Your task to perform on an android device: Open the stopwatch Image 0: 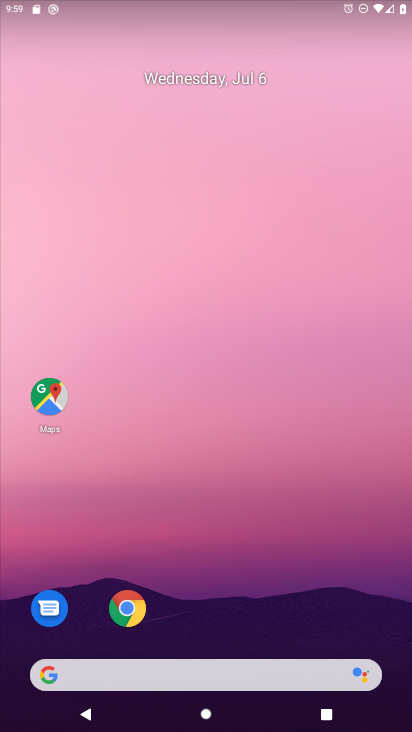
Step 0: drag from (204, 468) to (287, 122)
Your task to perform on an android device: Open the stopwatch Image 1: 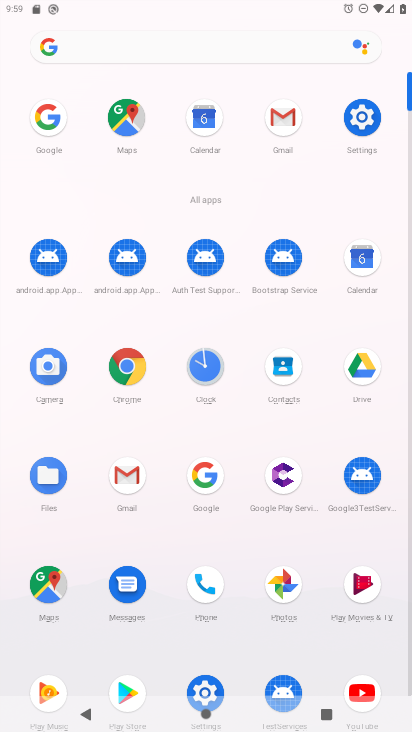
Step 1: click (200, 368)
Your task to perform on an android device: Open the stopwatch Image 2: 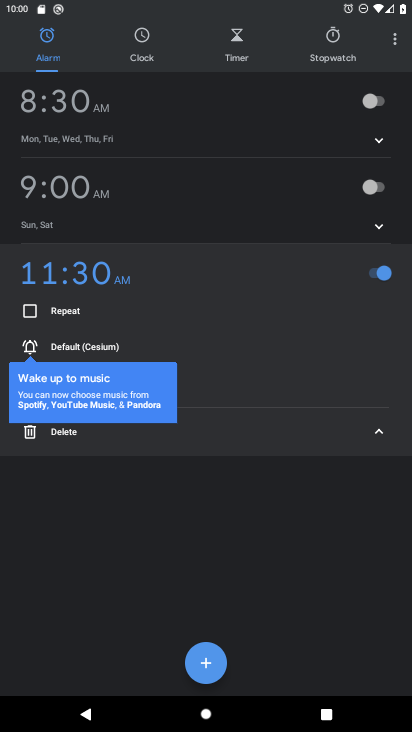
Step 2: click (322, 47)
Your task to perform on an android device: Open the stopwatch Image 3: 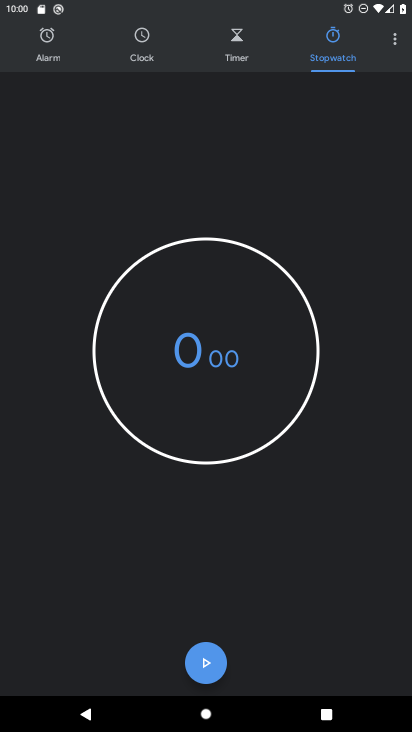
Step 3: task complete